Your task to perform on an android device: all mails in gmail Image 0: 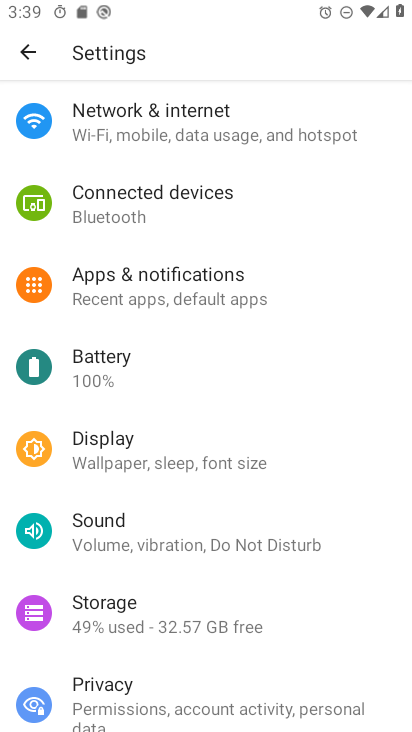
Step 0: press home button
Your task to perform on an android device: all mails in gmail Image 1: 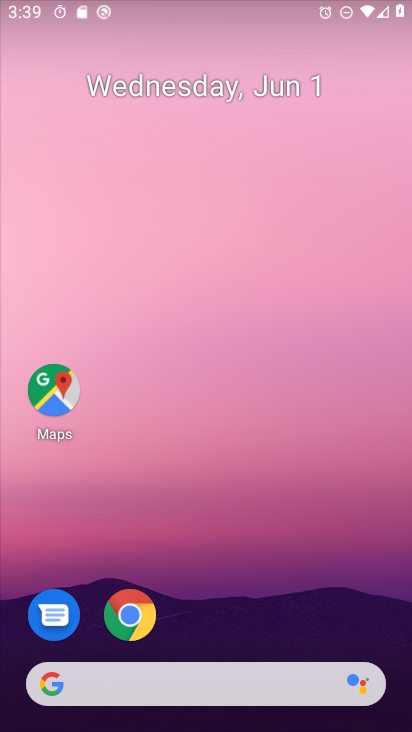
Step 1: drag from (251, 595) to (215, 110)
Your task to perform on an android device: all mails in gmail Image 2: 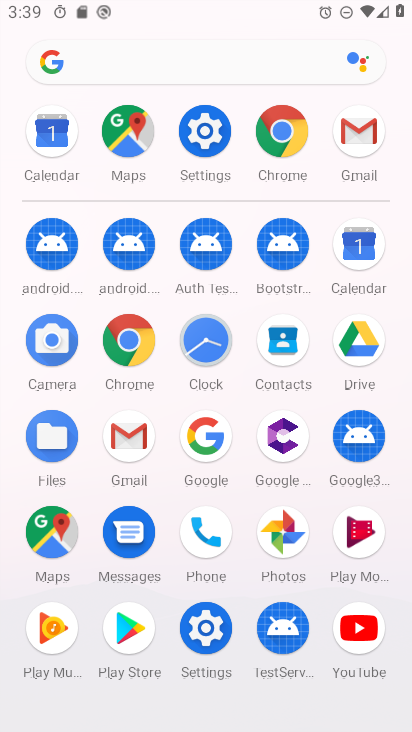
Step 2: click (141, 444)
Your task to perform on an android device: all mails in gmail Image 3: 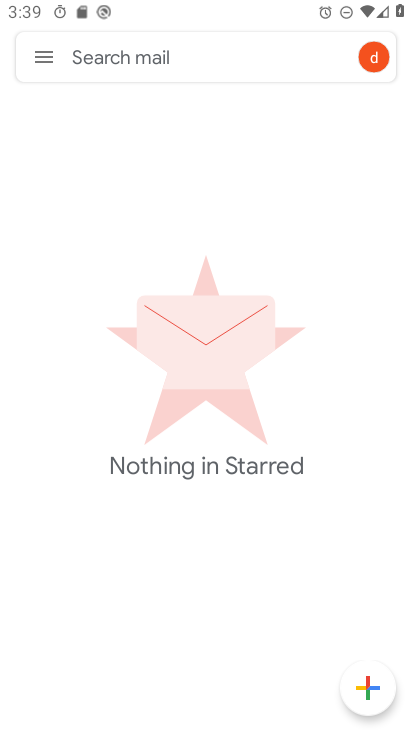
Step 3: click (29, 56)
Your task to perform on an android device: all mails in gmail Image 4: 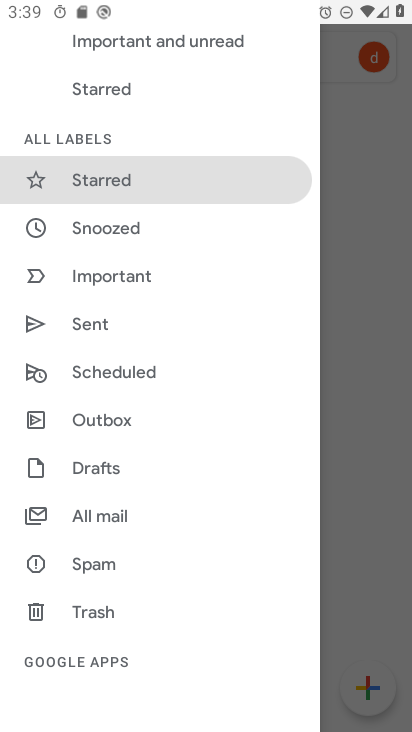
Step 4: drag from (202, 110) to (171, 571)
Your task to perform on an android device: all mails in gmail Image 5: 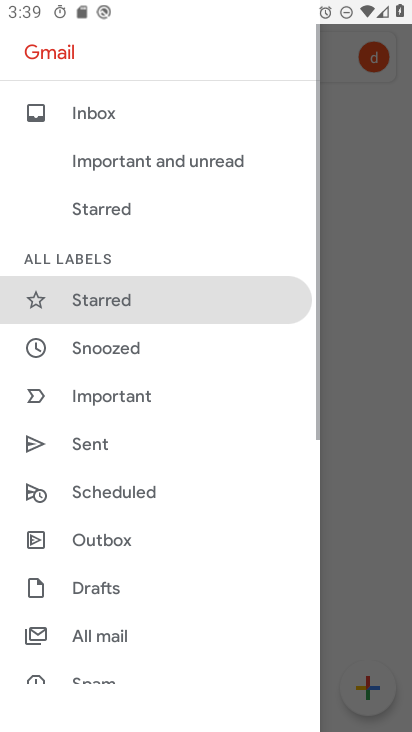
Step 5: click (131, 632)
Your task to perform on an android device: all mails in gmail Image 6: 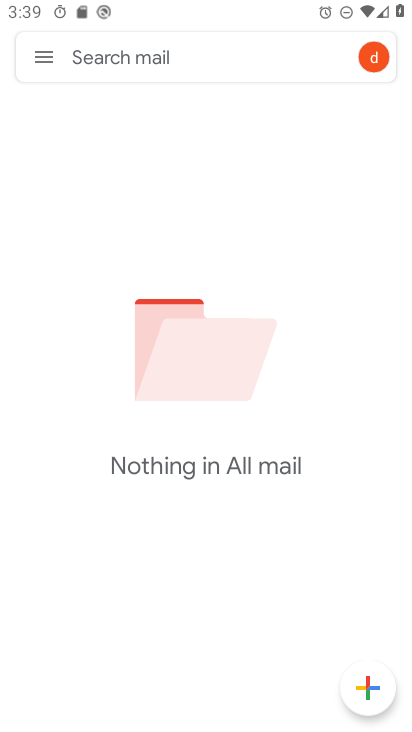
Step 6: task complete